Your task to perform on an android device: add a label to a message in the gmail app Image 0: 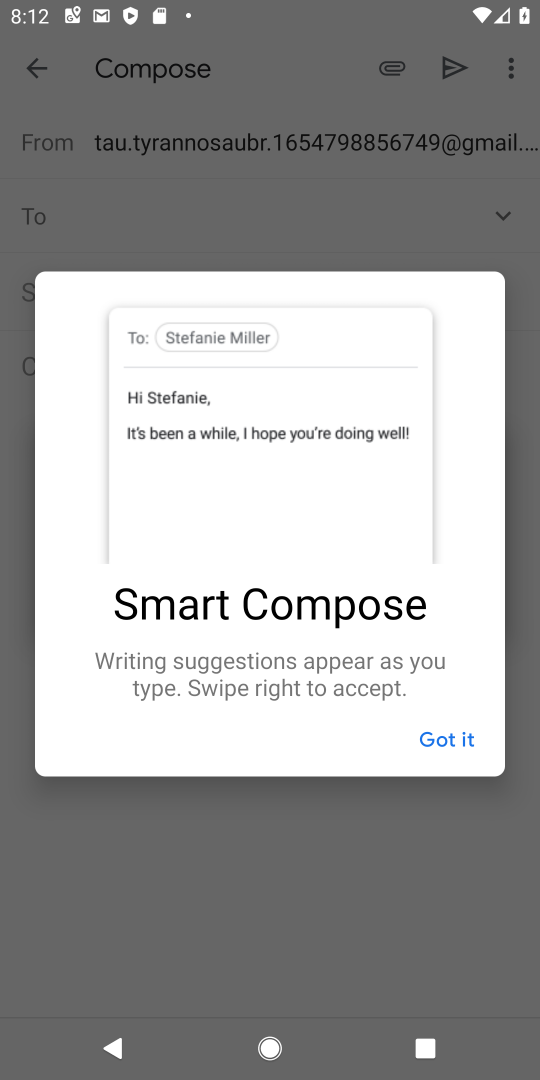
Step 0: press home button
Your task to perform on an android device: add a label to a message in the gmail app Image 1: 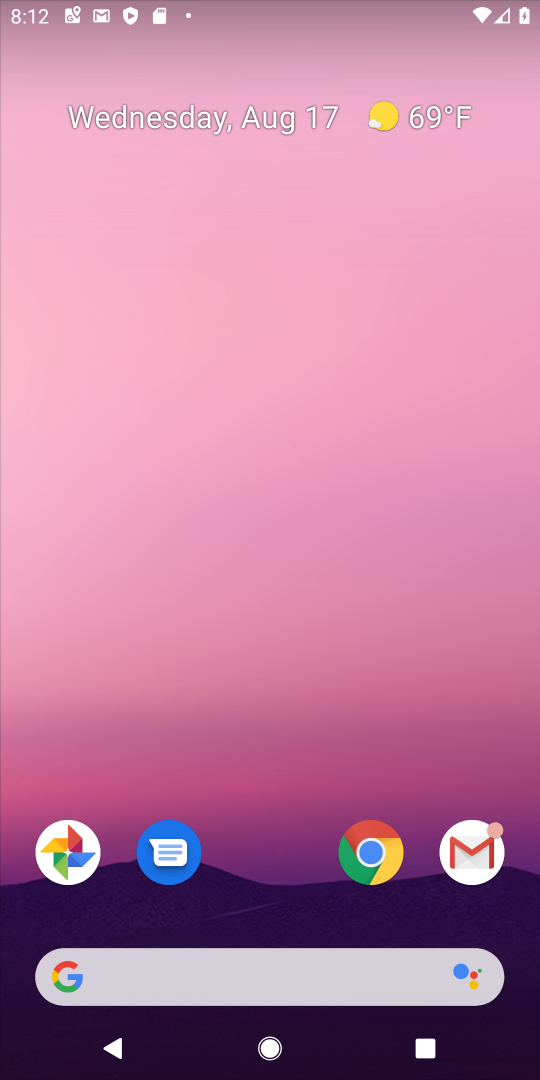
Step 1: click (473, 855)
Your task to perform on an android device: add a label to a message in the gmail app Image 2: 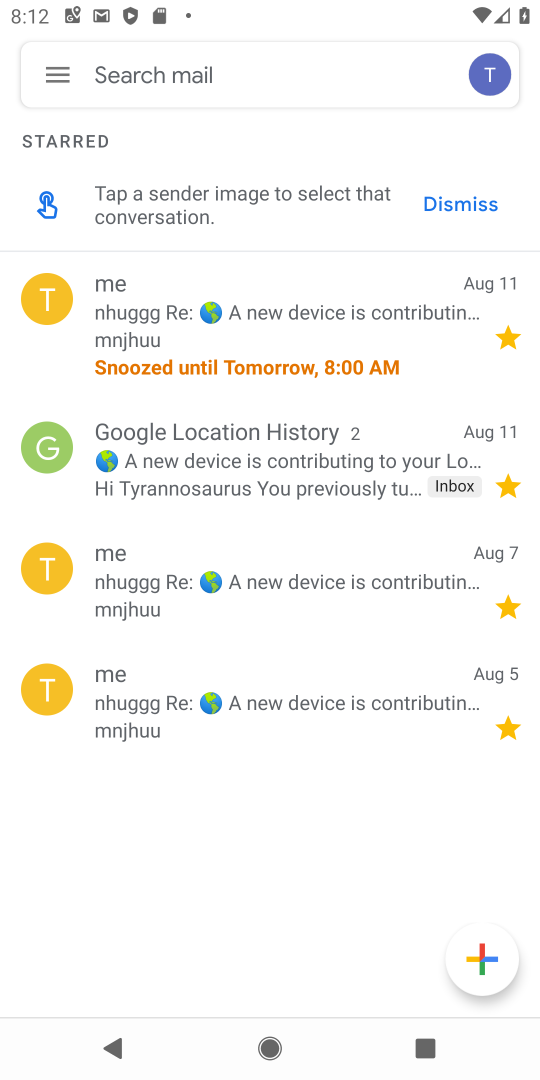
Step 2: click (161, 309)
Your task to perform on an android device: add a label to a message in the gmail app Image 3: 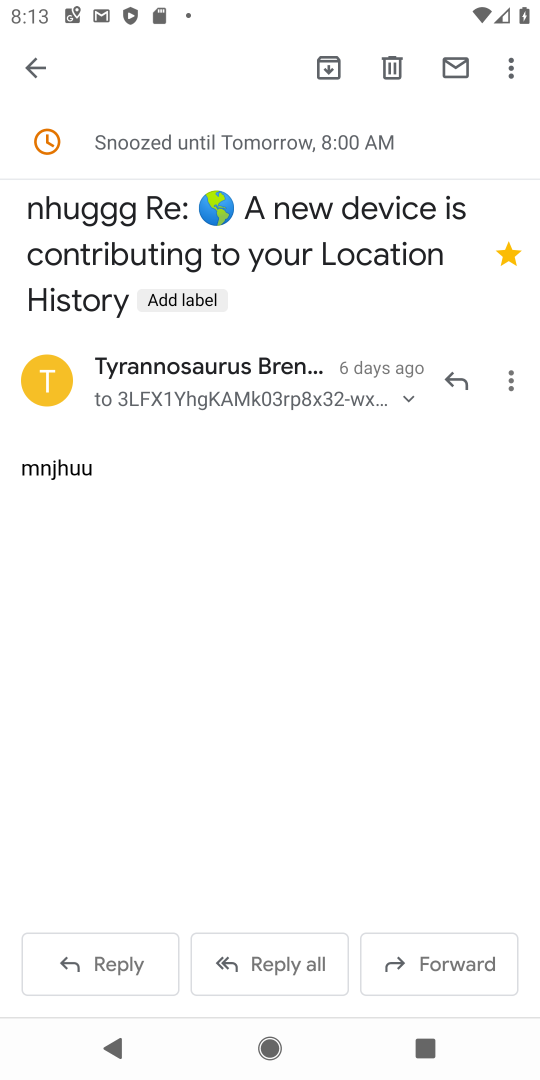
Step 3: click (506, 61)
Your task to perform on an android device: add a label to a message in the gmail app Image 4: 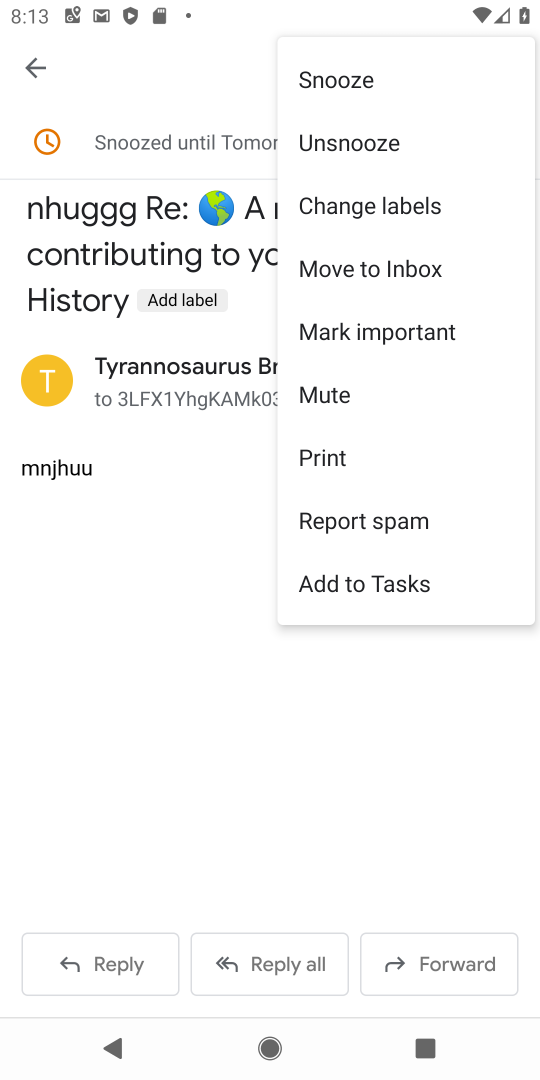
Step 4: click (365, 200)
Your task to perform on an android device: add a label to a message in the gmail app Image 5: 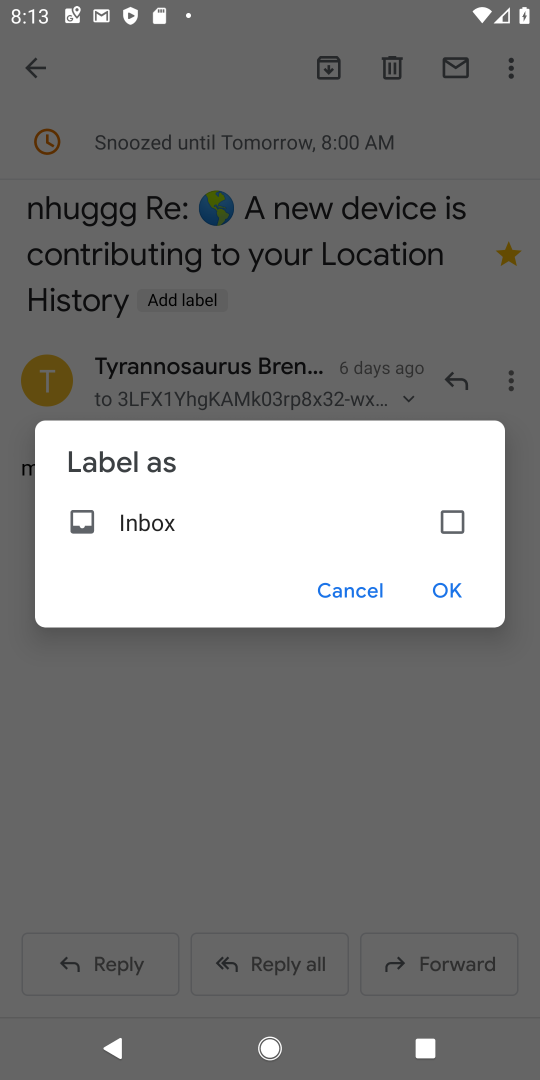
Step 5: click (451, 528)
Your task to perform on an android device: add a label to a message in the gmail app Image 6: 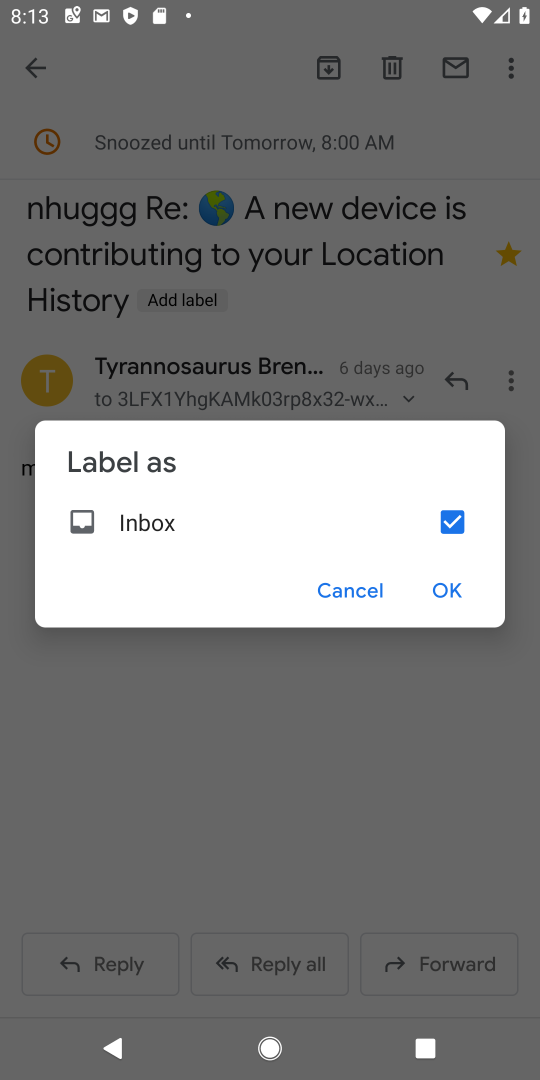
Step 6: click (447, 587)
Your task to perform on an android device: add a label to a message in the gmail app Image 7: 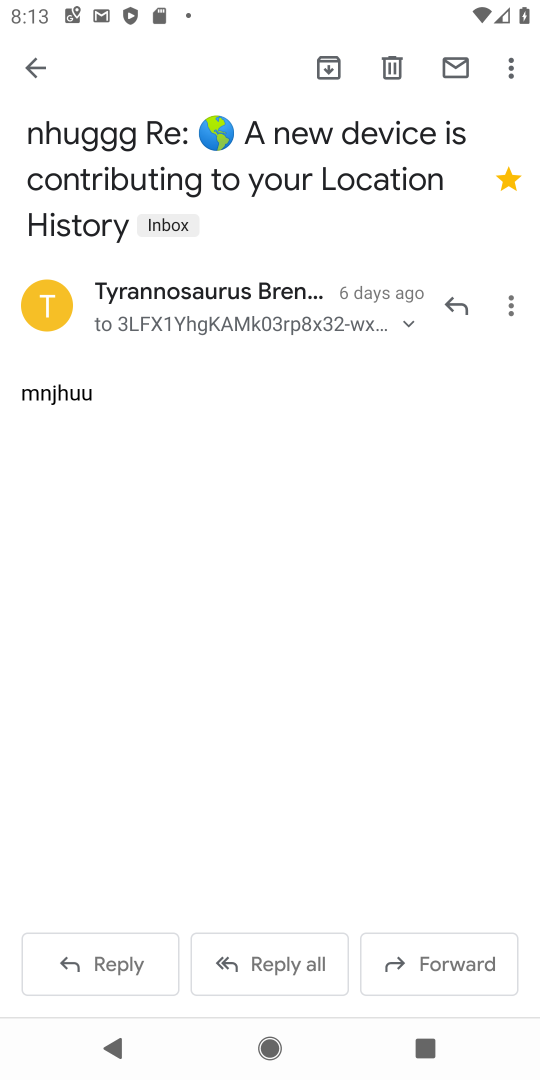
Step 7: task complete